Your task to perform on an android device: empty trash in the gmail app Image 0: 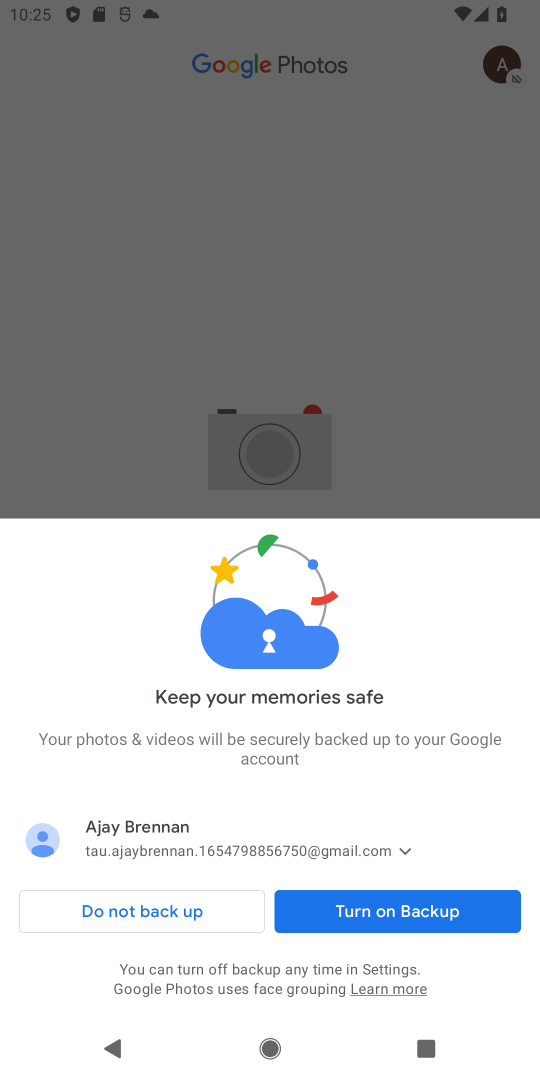
Step 0: press home button
Your task to perform on an android device: empty trash in the gmail app Image 1: 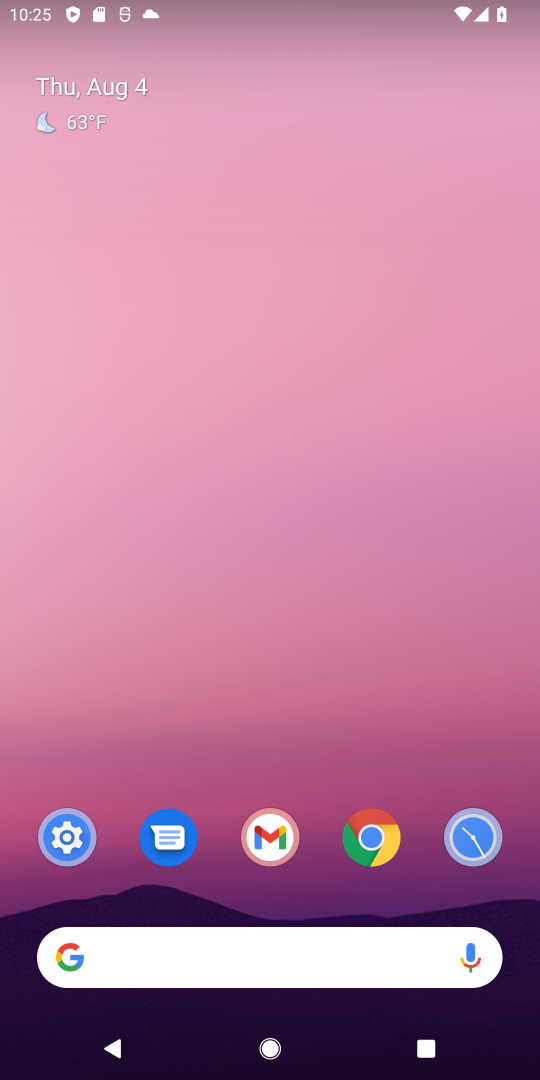
Step 1: drag from (285, 904) to (275, 125)
Your task to perform on an android device: empty trash in the gmail app Image 2: 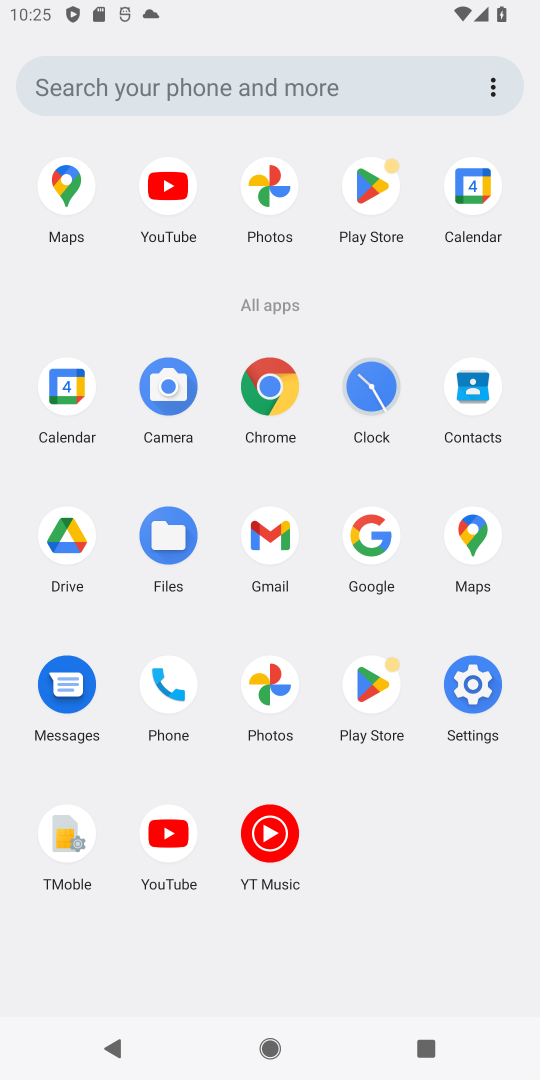
Step 2: click (264, 527)
Your task to perform on an android device: empty trash in the gmail app Image 3: 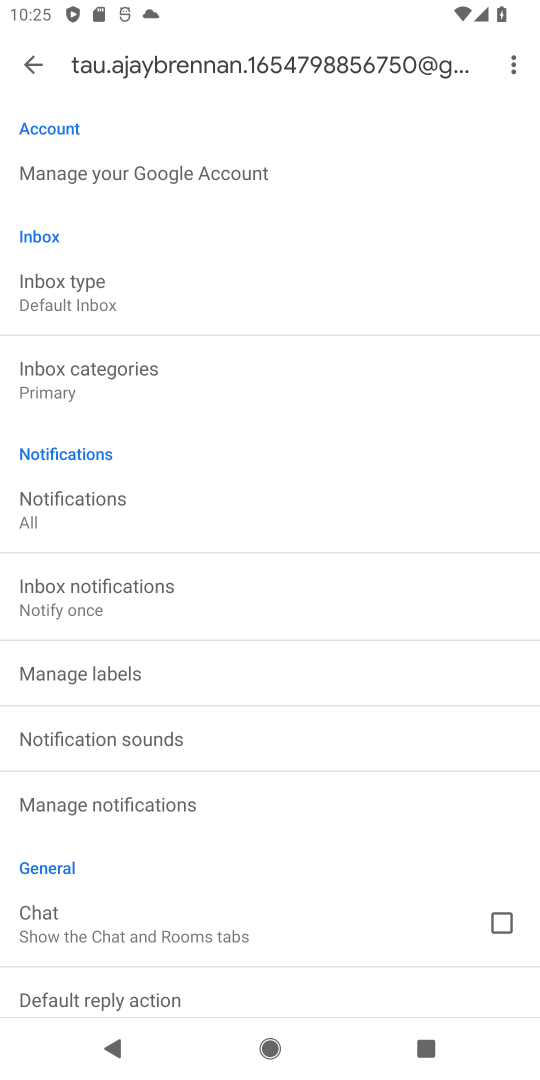
Step 3: click (31, 76)
Your task to perform on an android device: empty trash in the gmail app Image 4: 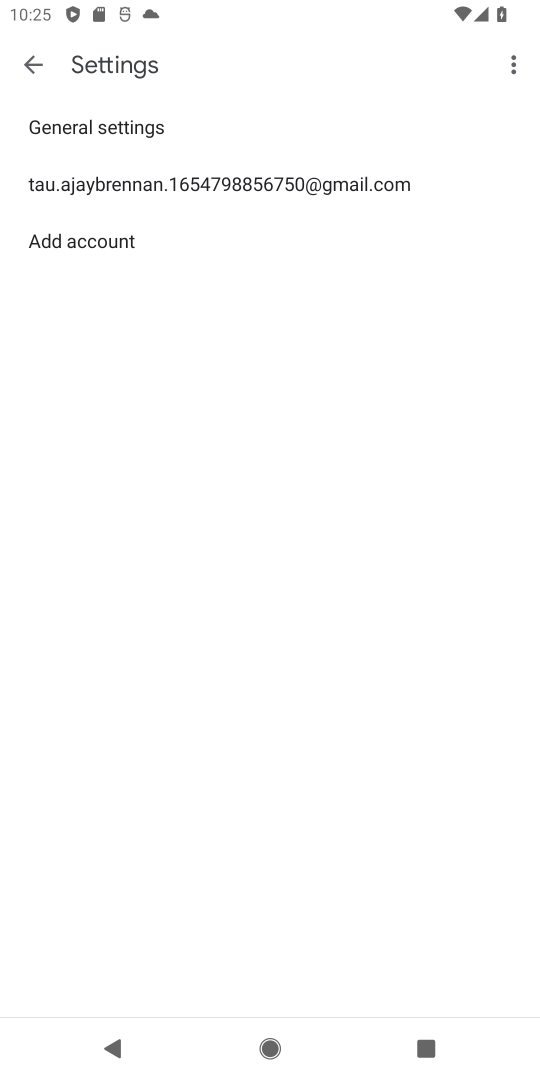
Step 4: click (31, 76)
Your task to perform on an android device: empty trash in the gmail app Image 5: 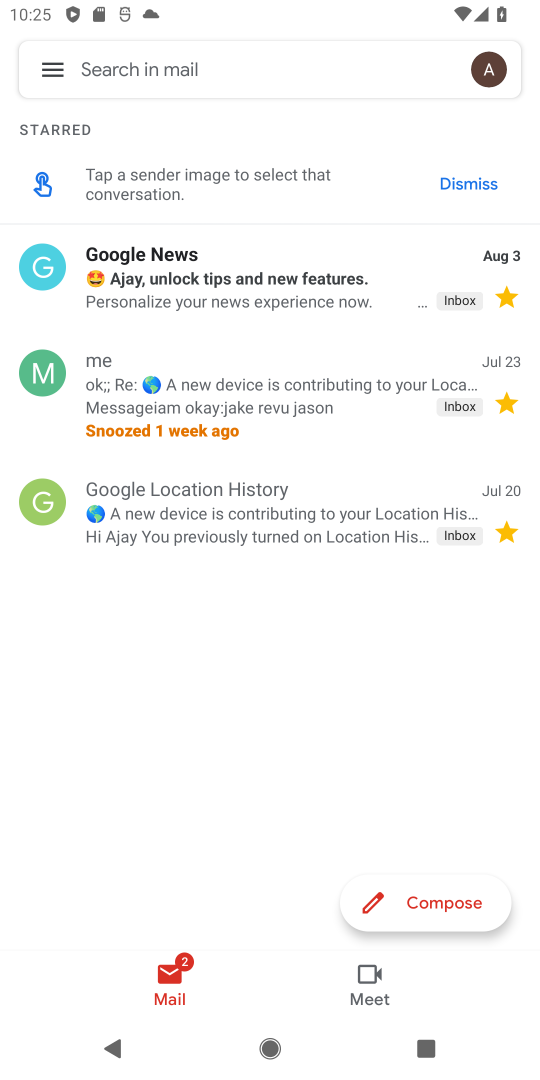
Step 5: click (44, 57)
Your task to perform on an android device: empty trash in the gmail app Image 6: 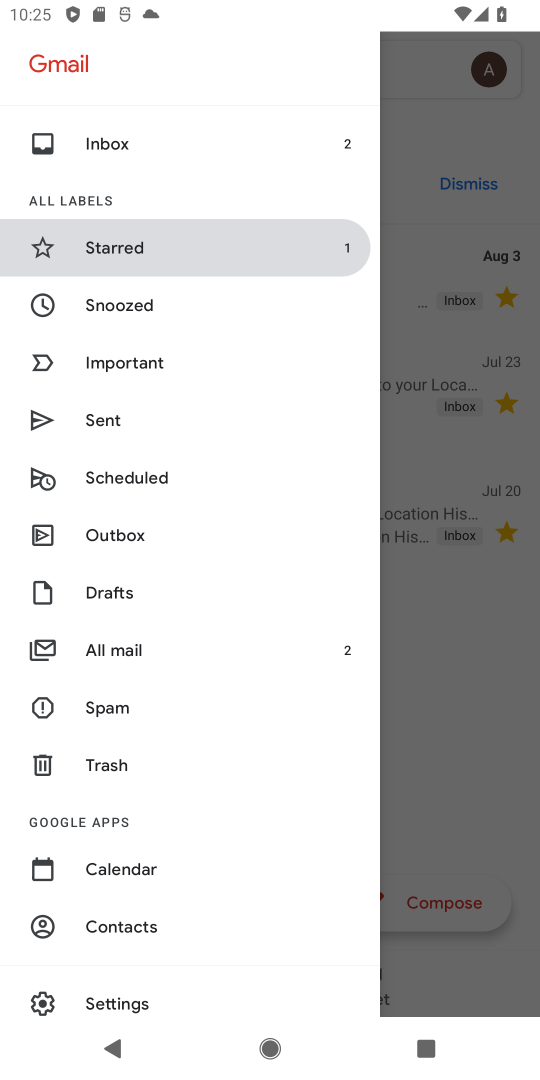
Step 6: click (118, 763)
Your task to perform on an android device: empty trash in the gmail app Image 7: 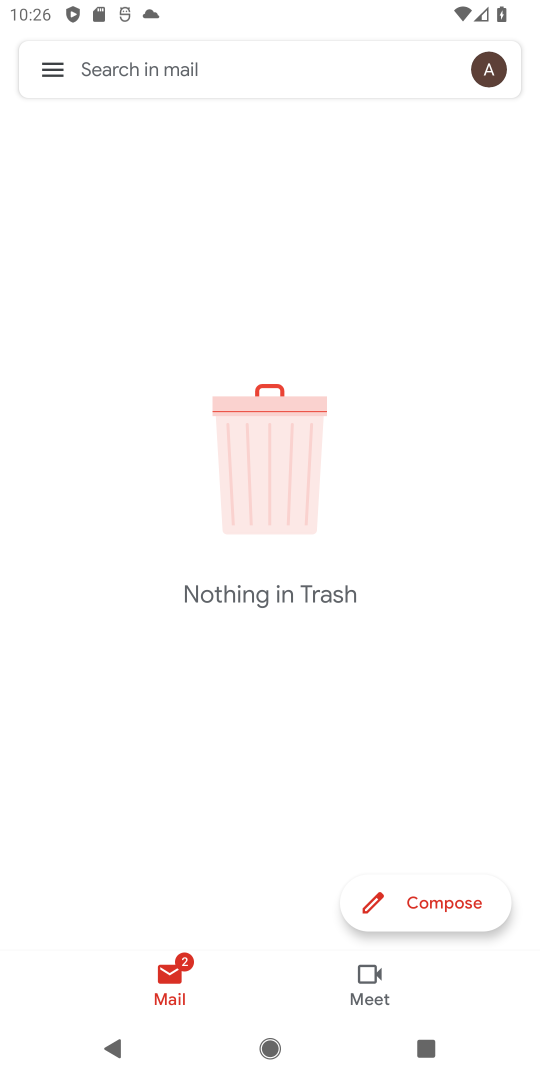
Step 7: task complete